Your task to perform on an android device: change text size in settings app Image 0: 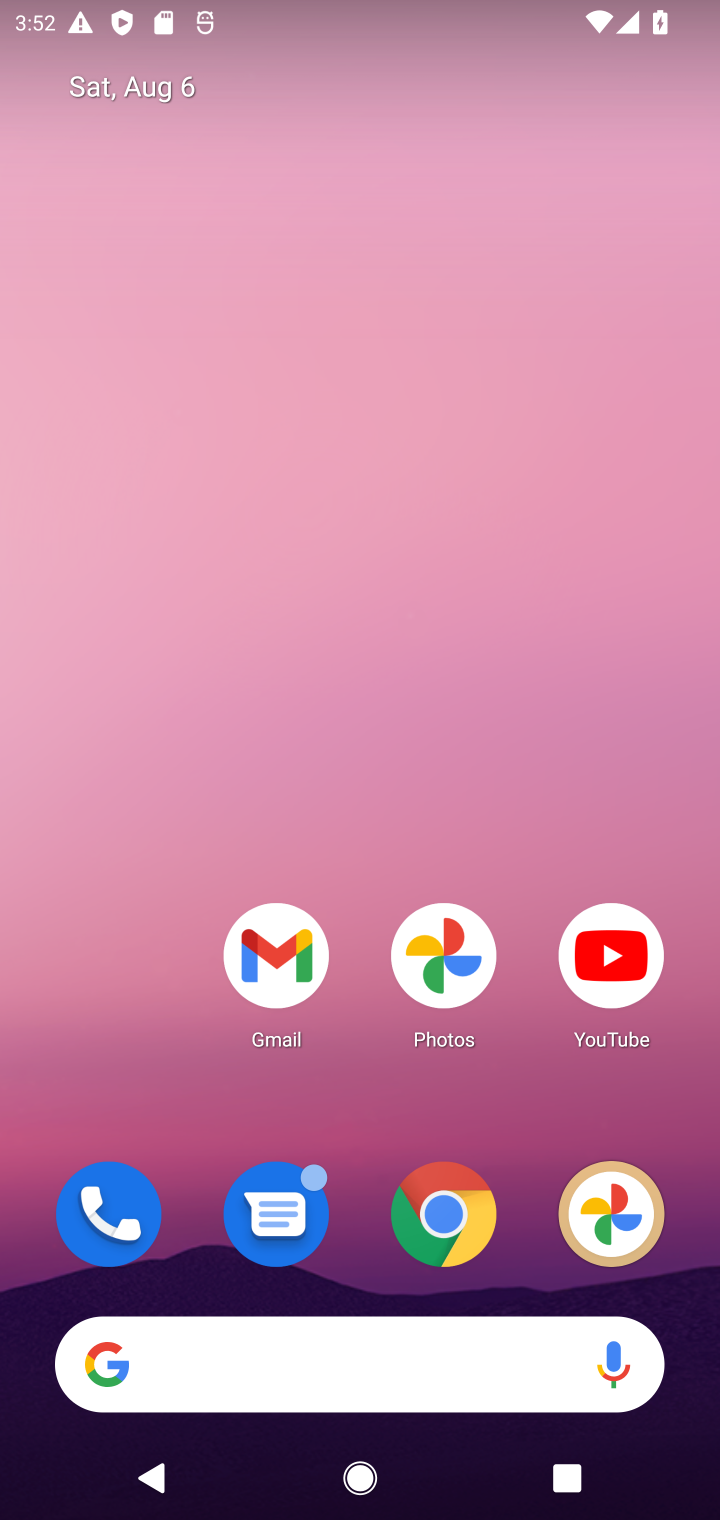
Step 0: drag from (458, 107) to (375, 11)
Your task to perform on an android device: change text size in settings app Image 1: 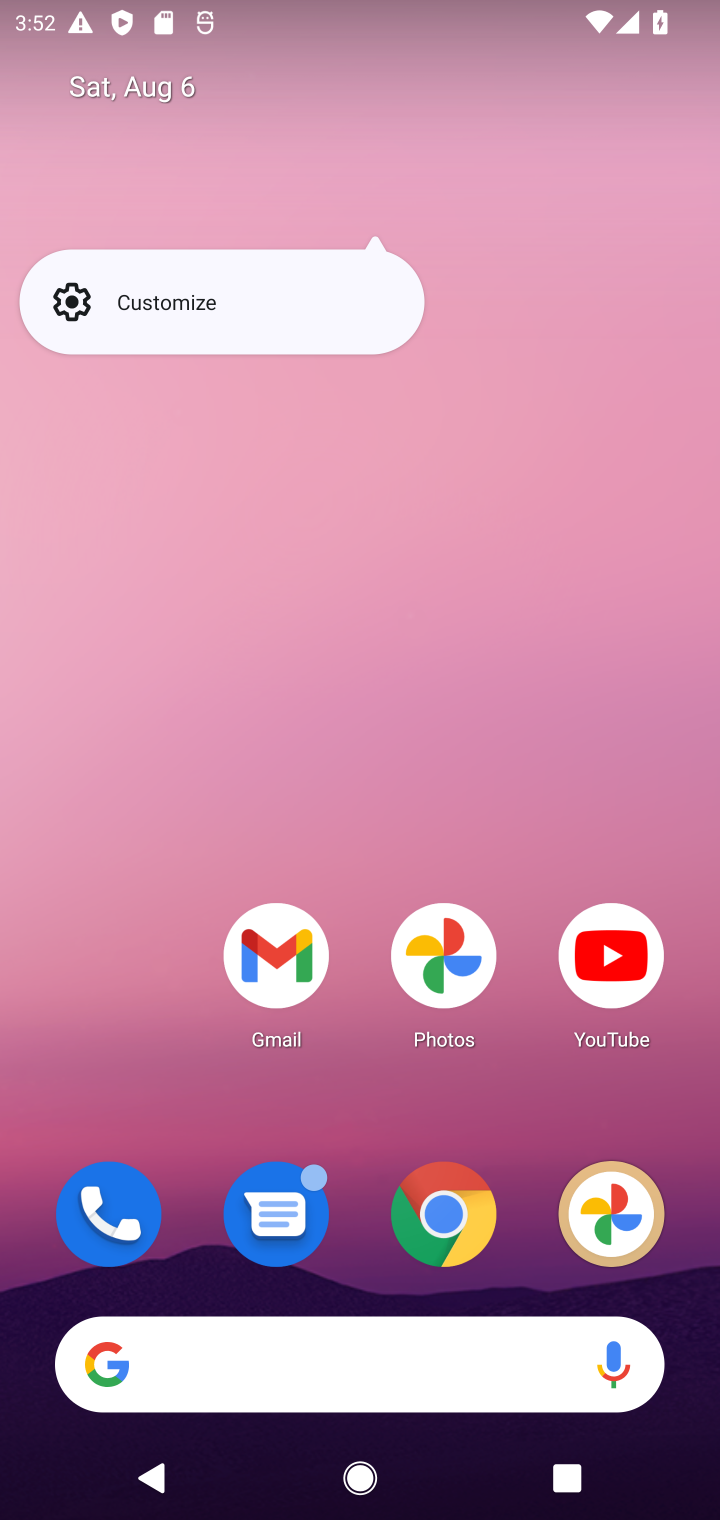
Step 1: drag from (429, 99) to (395, 2)
Your task to perform on an android device: change text size in settings app Image 2: 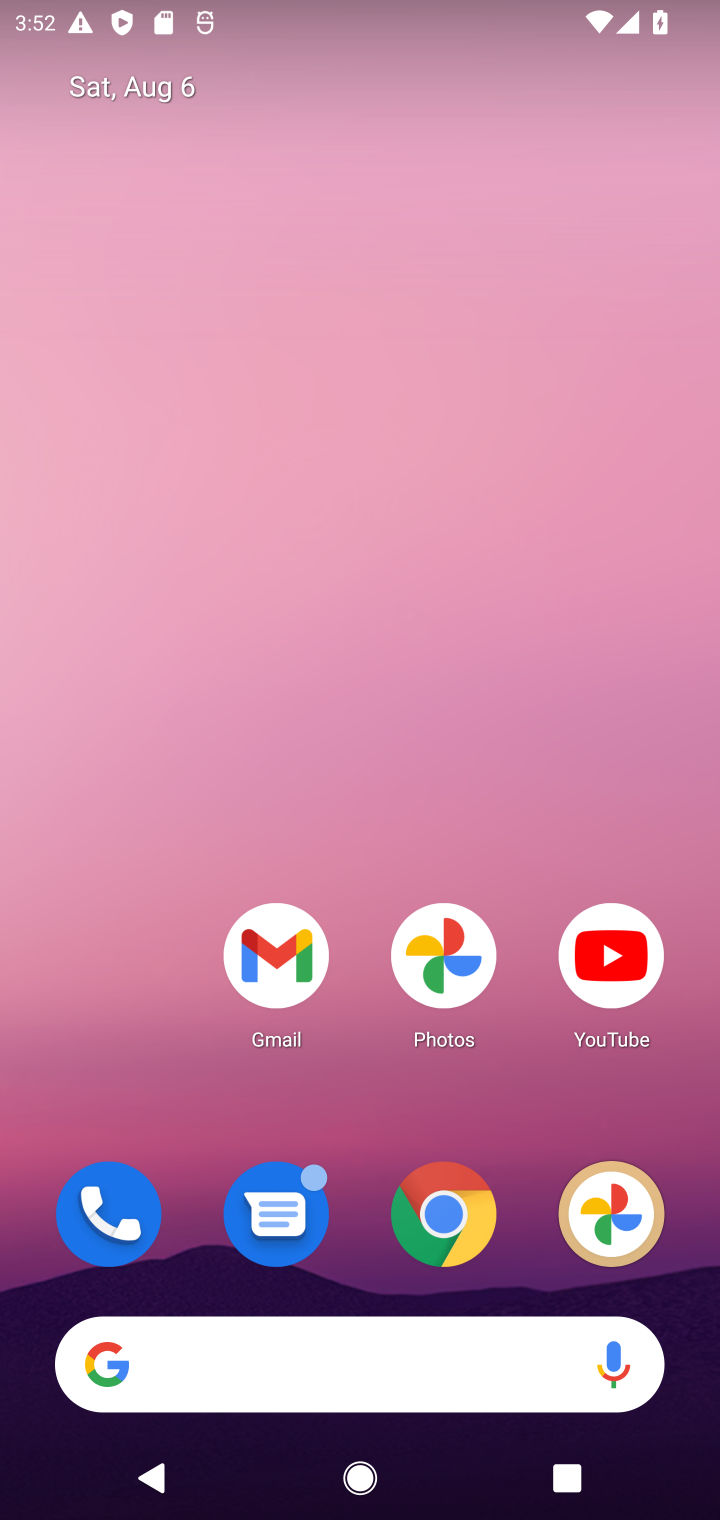
Step 2: click (260, 53)
Your task to perform on an android device: change text size in settings app Image 3: 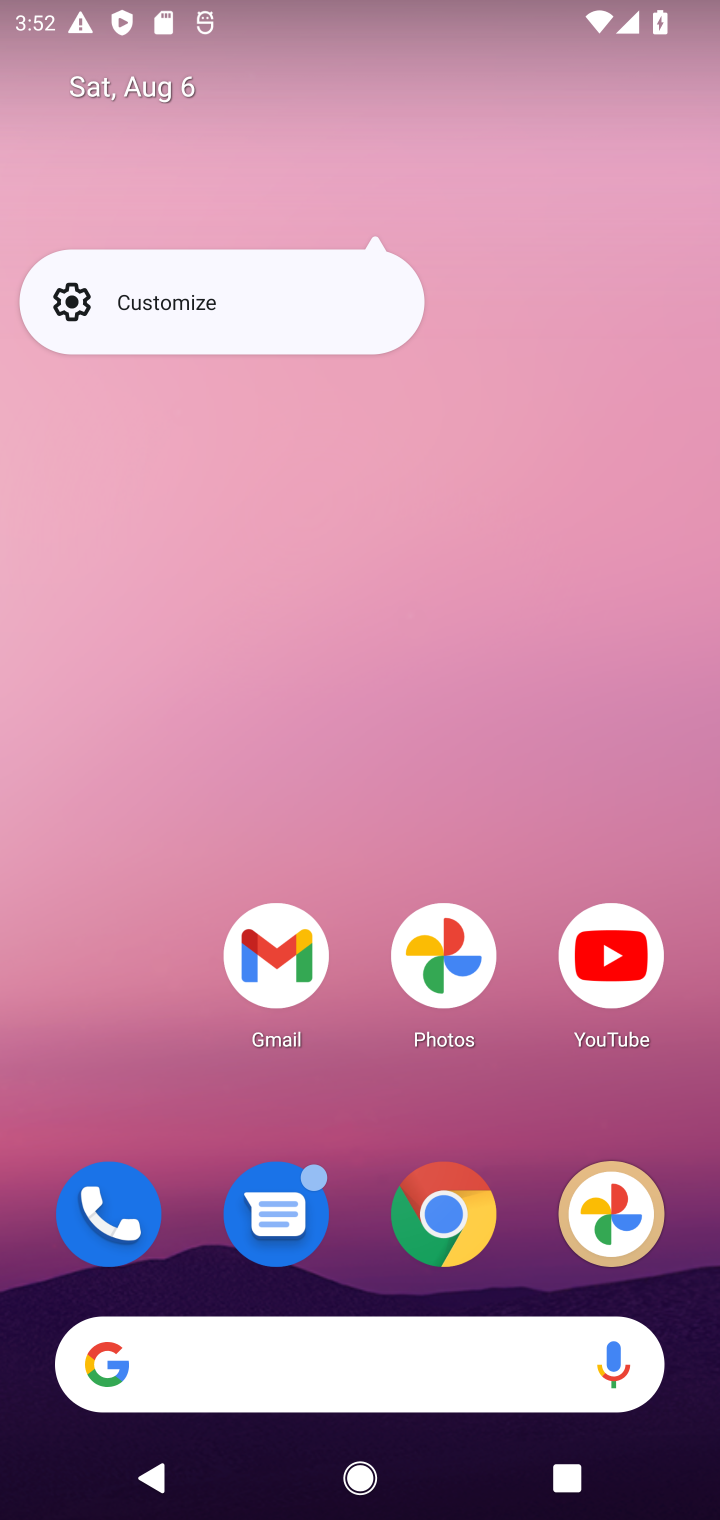
Step 3: click (472, 328)
Your task to perform on an android device: change text size in settings app Image 4: 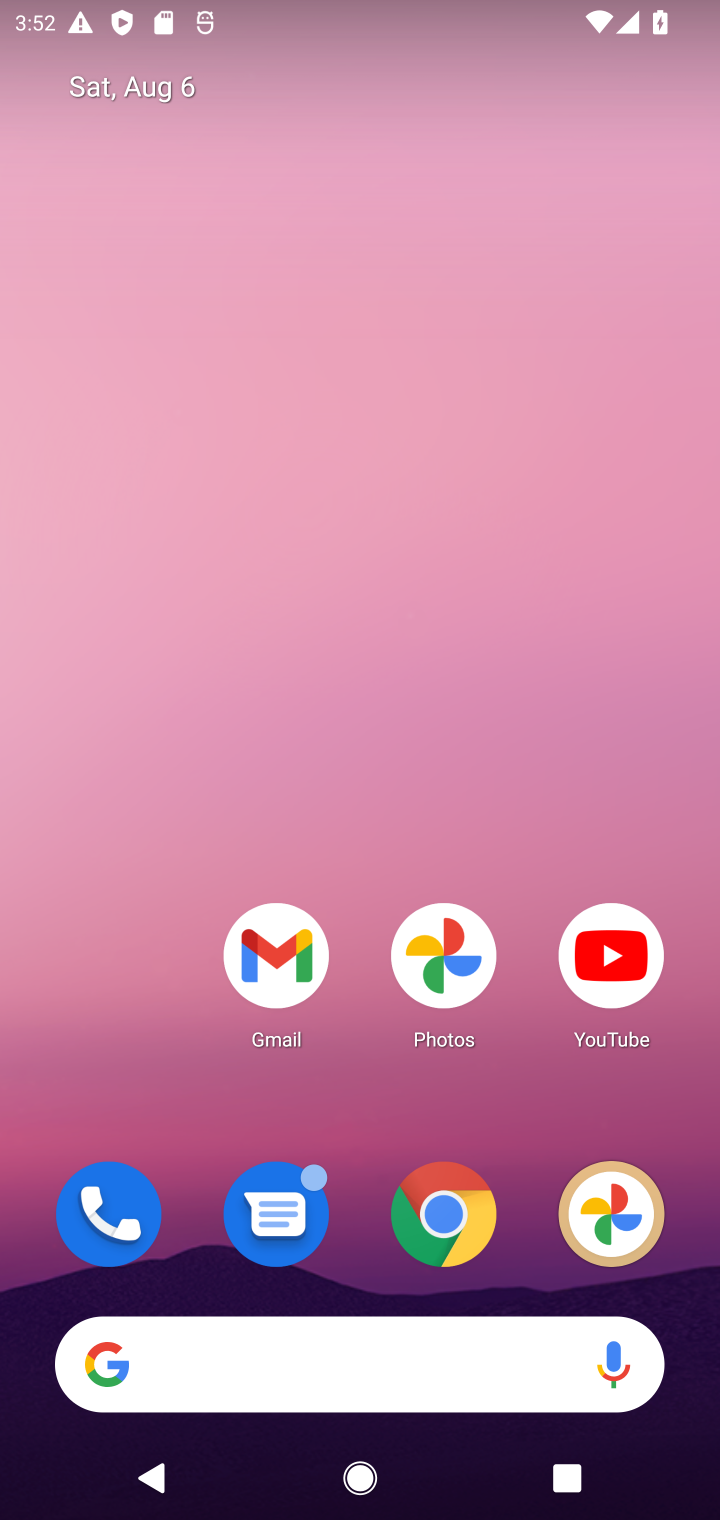
Step 4: drag from (351, 1029) to (392, 355)
Your task to perform on an android device: change text size in settings app Image 5: 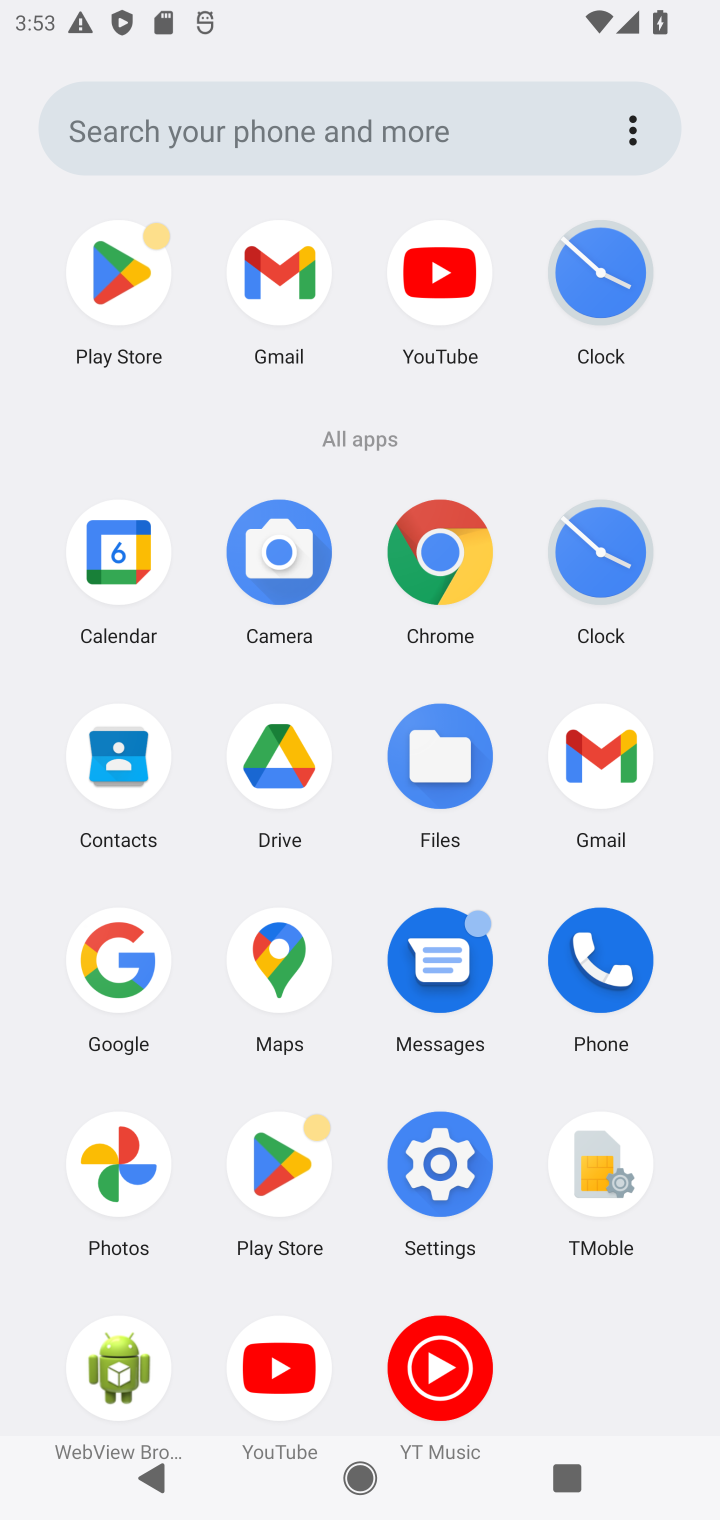
Step 5: click (441, 1202)
Your task to perform on an android device: change text size in settings app Image 6: 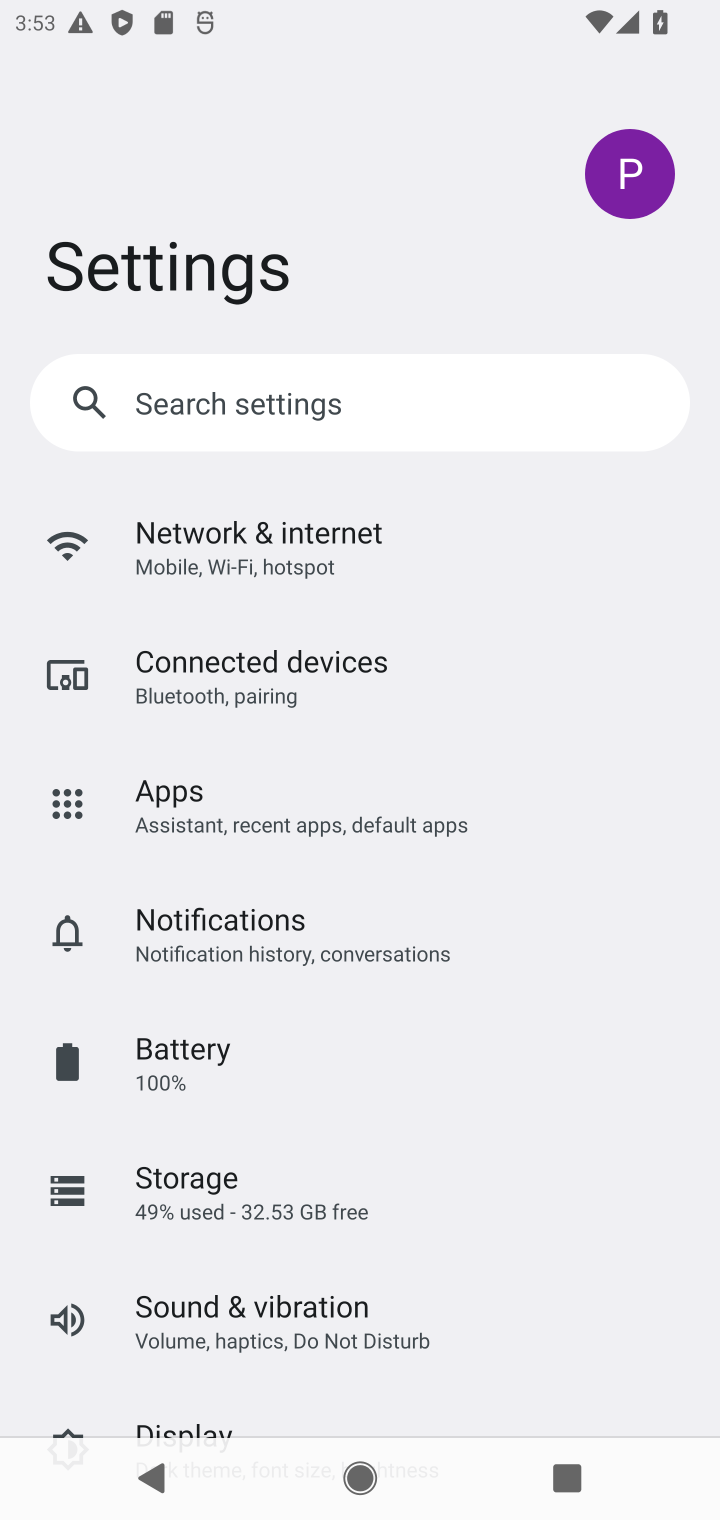
Step 6: drag from (374, 1191) to (395, 583)
Your task to perform on an android device: change text size in settings app Image 7: 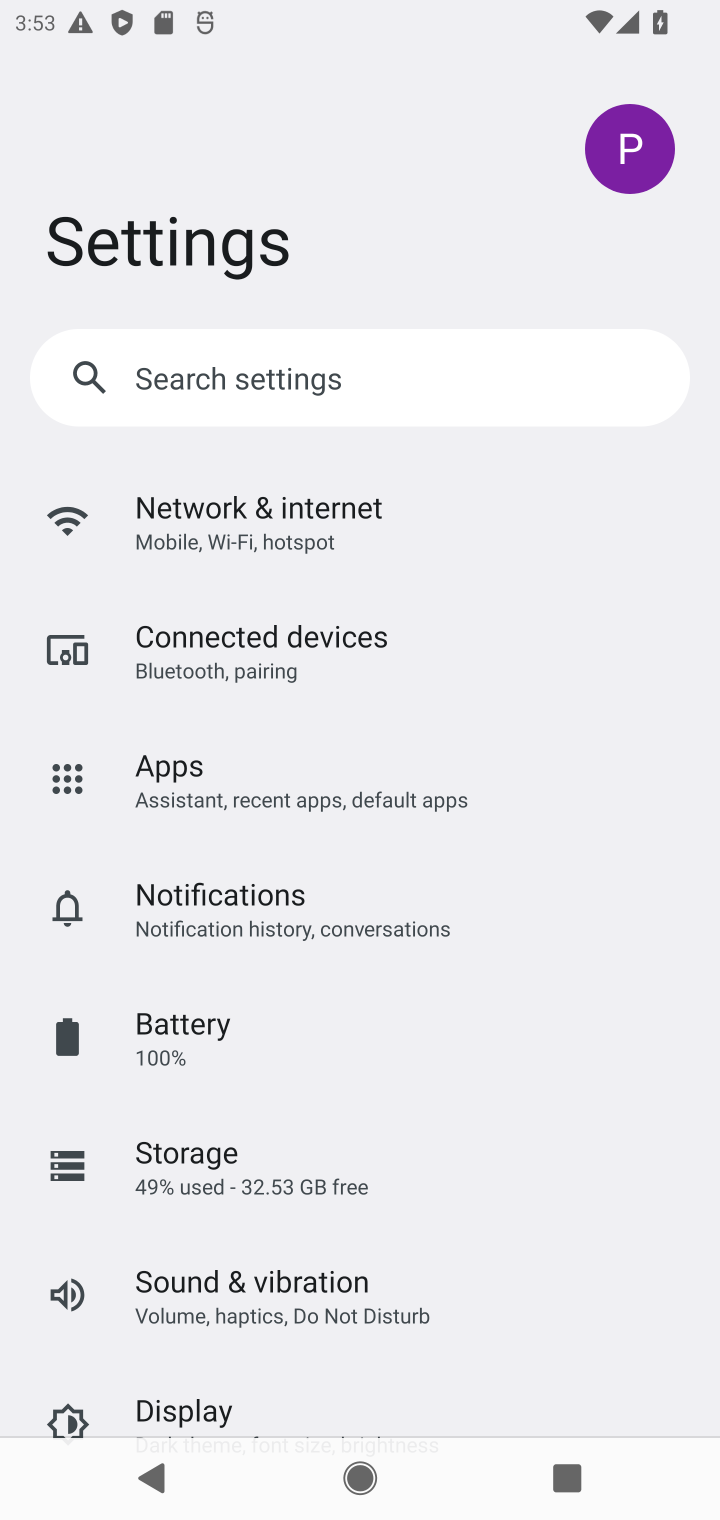
Step 7: click (187, 1413)
Your task to perform on an android device: change text size in settings app Image 8: 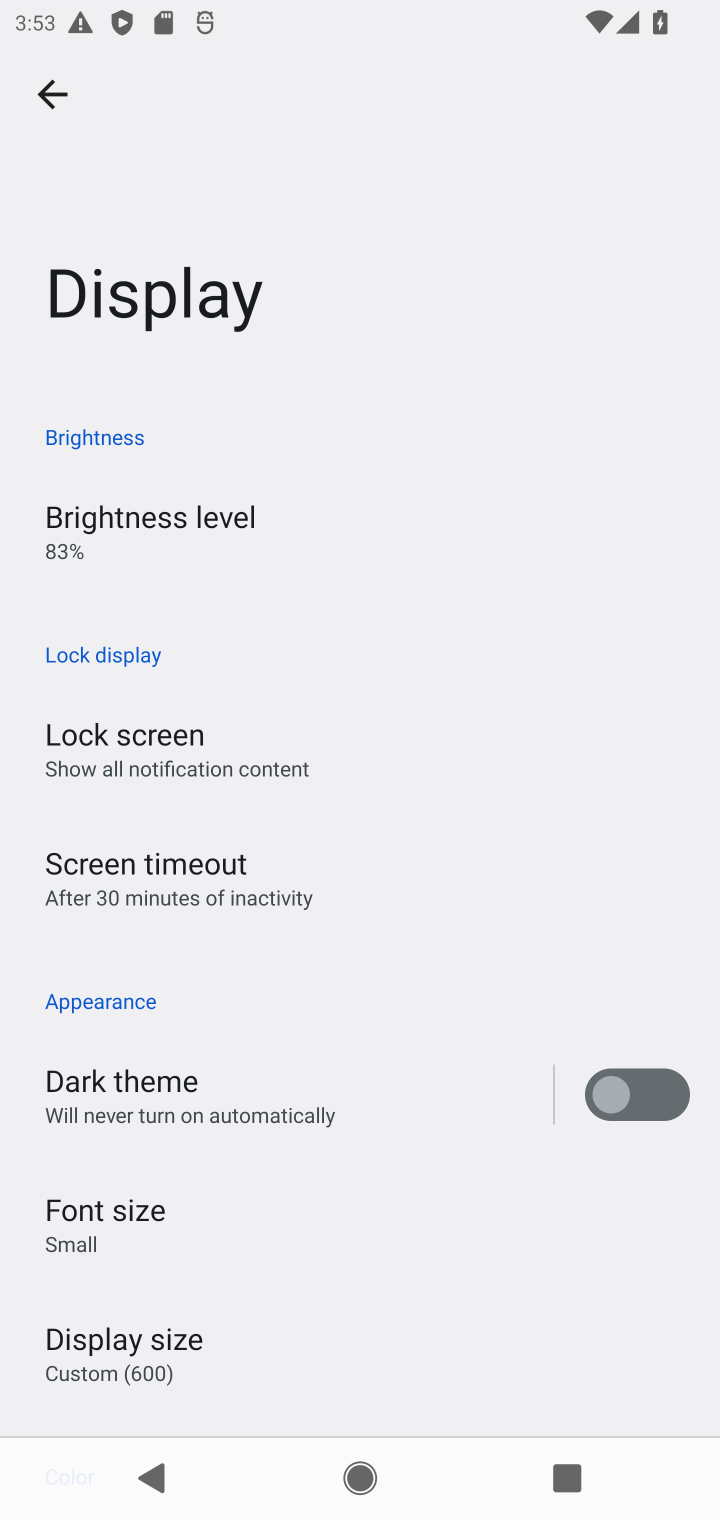
Step 8: click (117, 1239)
Your task to perform on an android device: change text size in settings app Image 9: 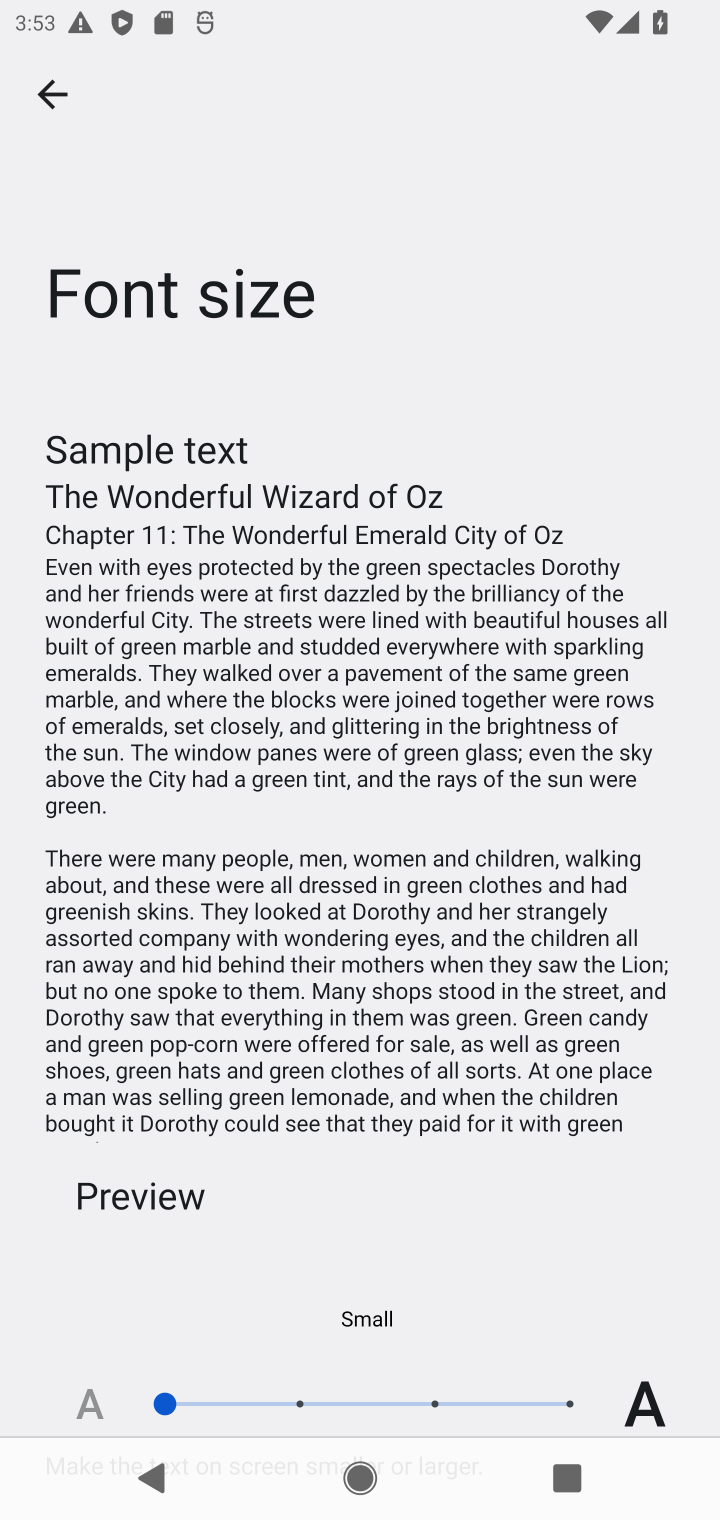
Step 9: click (306, 1406)
Your task to perform on an android device: change text size in settings app Image 10: 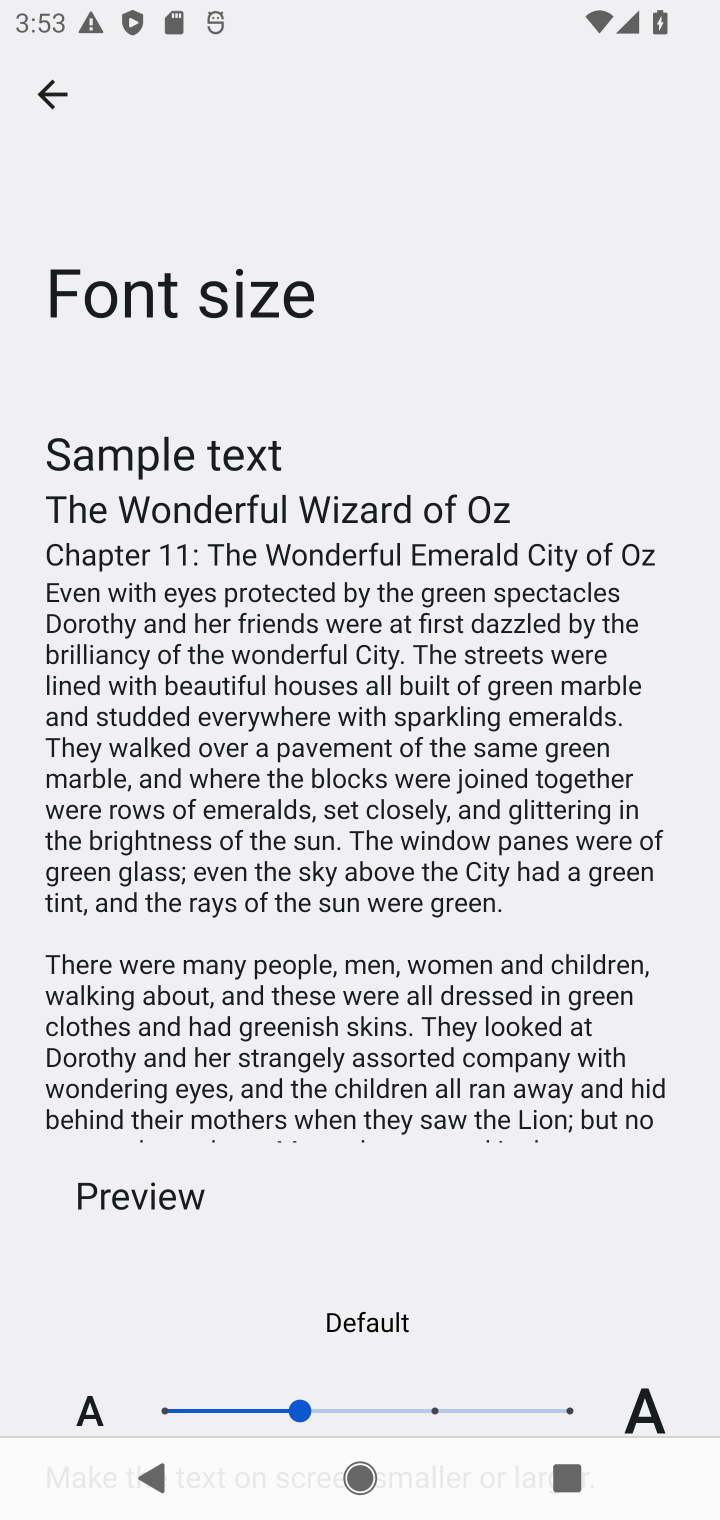
Step 10: task complete